Your task to perform on an android device: turn off sleep mode Image 0: 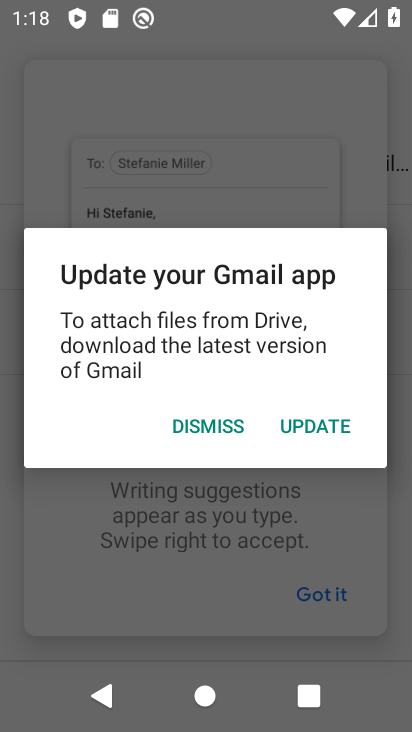
Step 0: press home button
Your task to perform on an android device: turn off sleep mode Image 1: 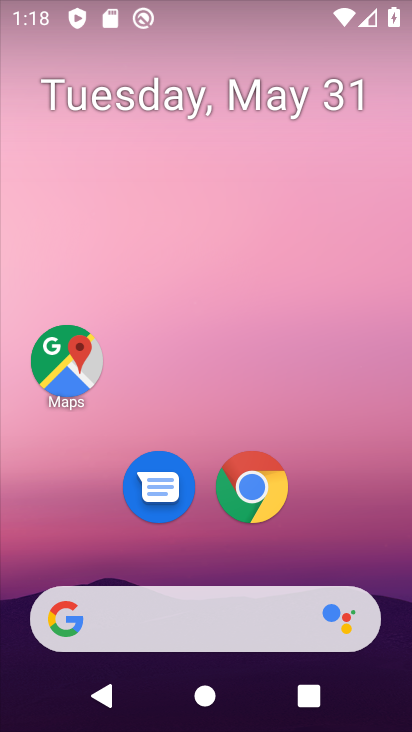
Step 1: drag from (56, 529) to (222, 57)
Your task to perform on an android device: turn off sleep mode Image 2: 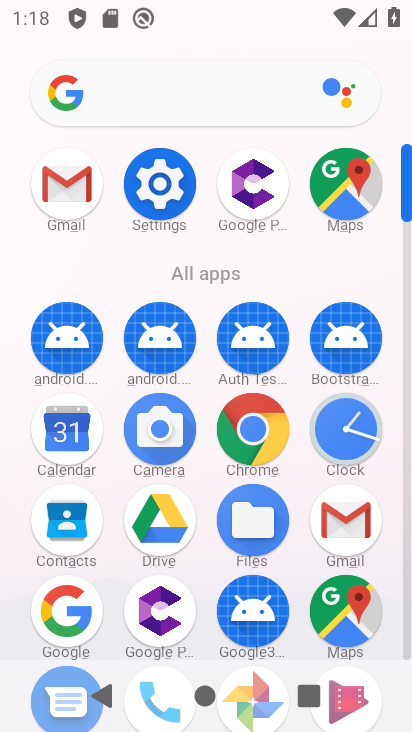
Step 2: drag from (153, 508) to (240, 192)
Your task to perform on an android device: turn off sleep mode Image 3: 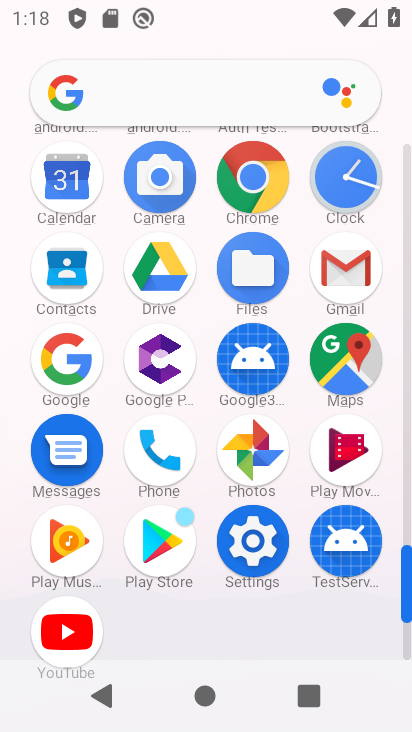
Step 3: click (257, 566)
Your task to perform on an android device: turn off sleep mode Image 4: 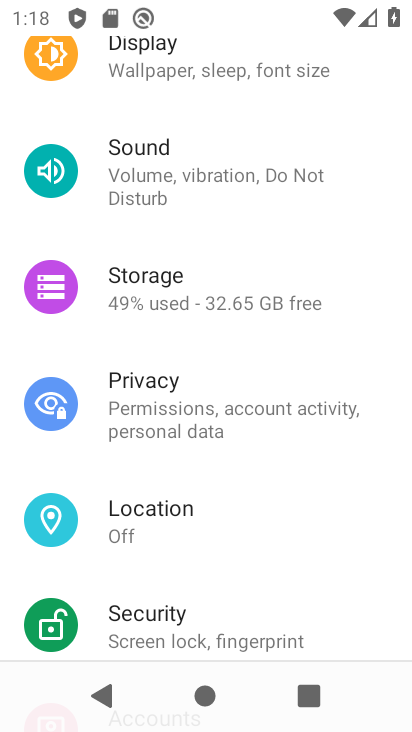
Step 4: drag from (234, 188) to (218, 439)
Your task to perform on an android device: turn off sleep mode Image 5: 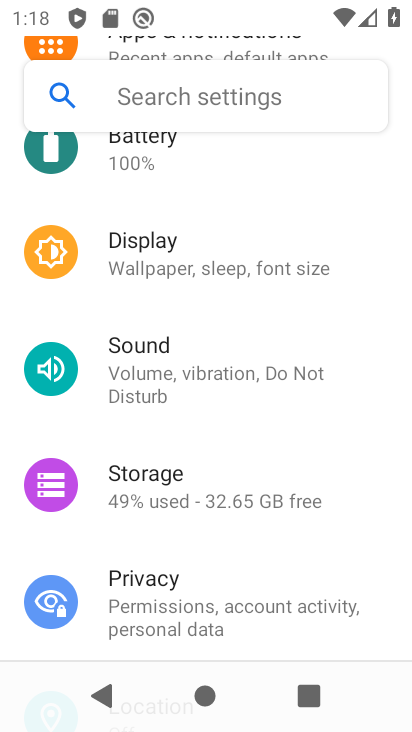
Step 5: click (202, 273)
Your task to perform on an android device: turn off sleep mode Image 6: 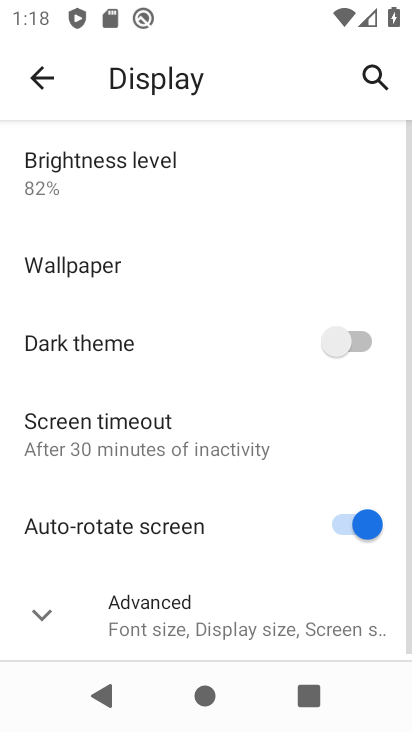
Step 6: click (180, 616)
Your task to perform on an android device: turn off sleep mode Image 7: 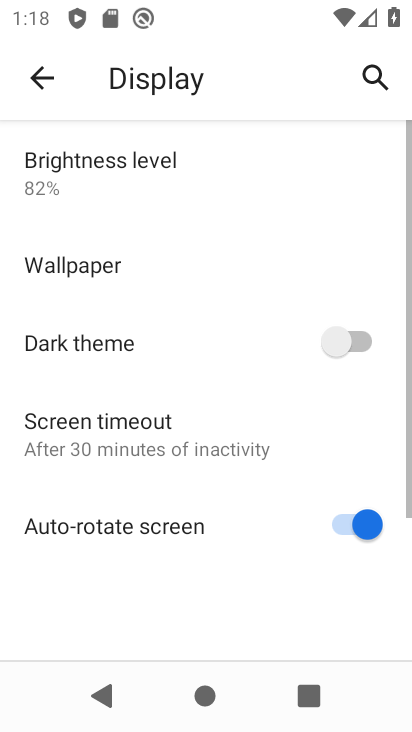
Step 7: task complete